Your task to perform on an android device: allow cookies in the chrome app Image 0: 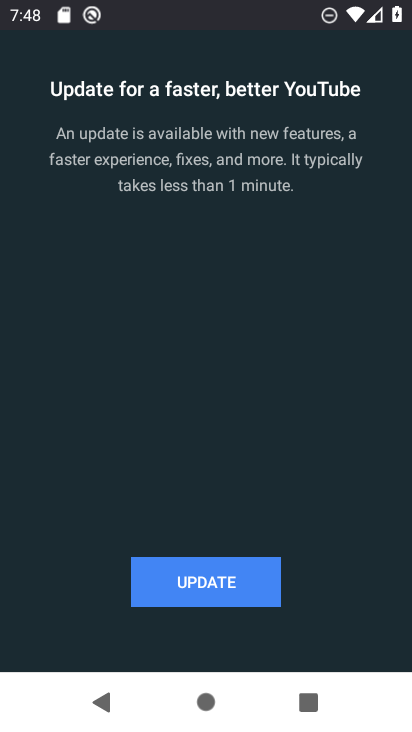
Step 0: press home button
Your task to perform on an android device: allow cookies in the chrome app Image 1: 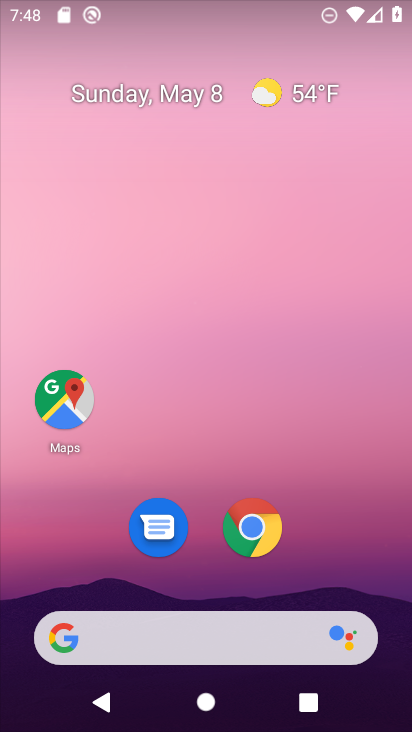
Step 1: click (256, 527)
Your task to perform on an android device: allow cookies in the chrome app Image 2: 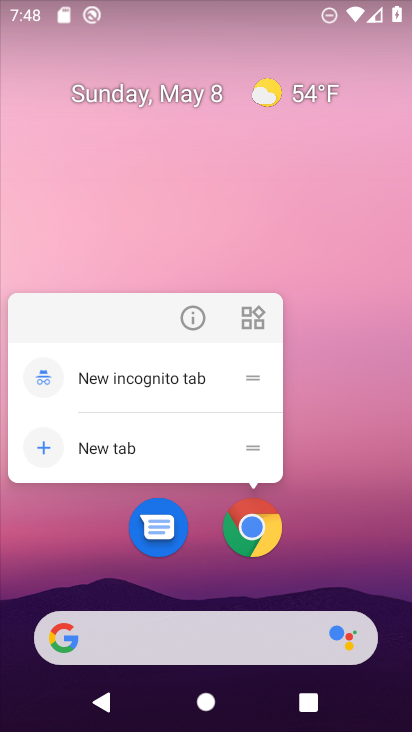
Step 2: click (256, 527)
Your task to perform on an android device: allow cookies in the chrome app Image 3: 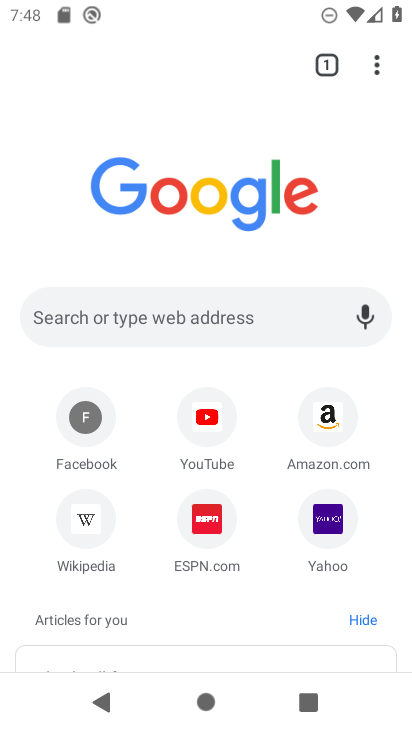
Step 3: drag from (377, 62) to (165, 545)
Your task to perform on an android device: allow cookies in the chrome app Image 4: 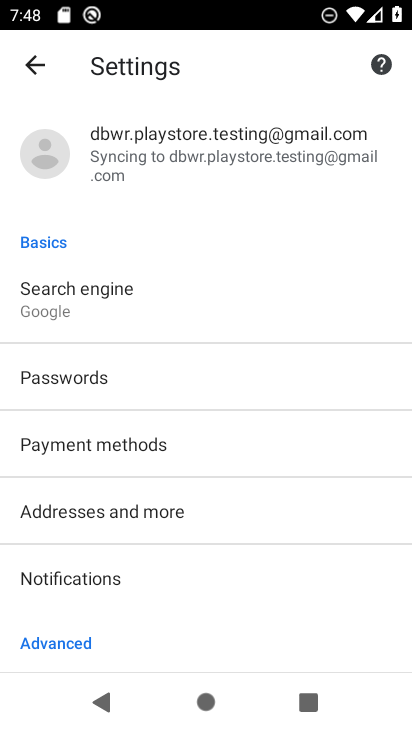
Step 4: drag from (148, 622) to (335, 141)
Your task to perform on an android device: allow cookies in the chrome app Image 5: 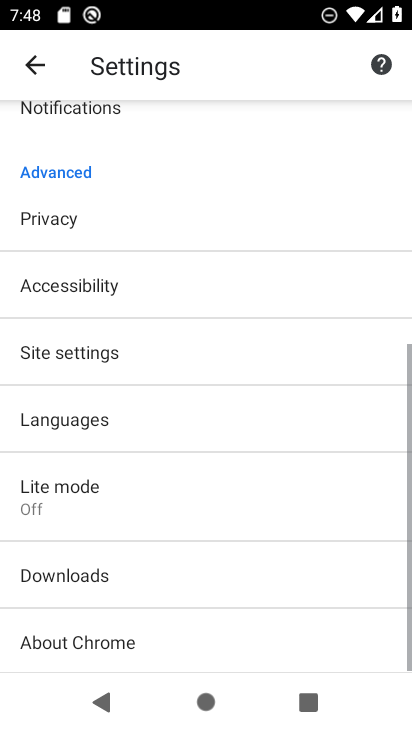
Step 5: click (335, 141)
Your task to perform on an android device: allow cookies in the chrome app Image 6: 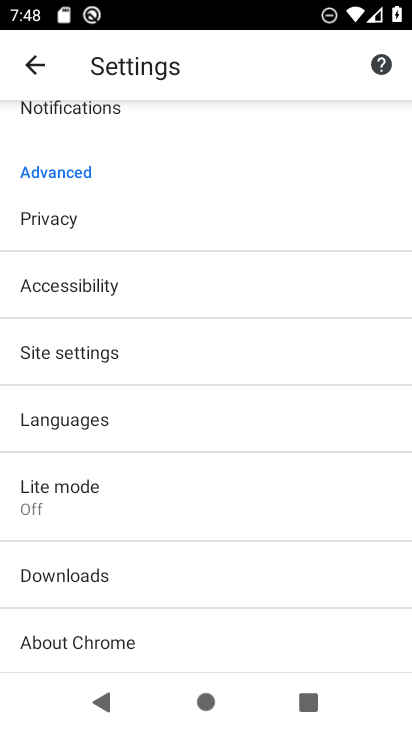
Step 6: click (79, 357)
Your task to perform on an android device: allow cookies in the chrome app Image 7: 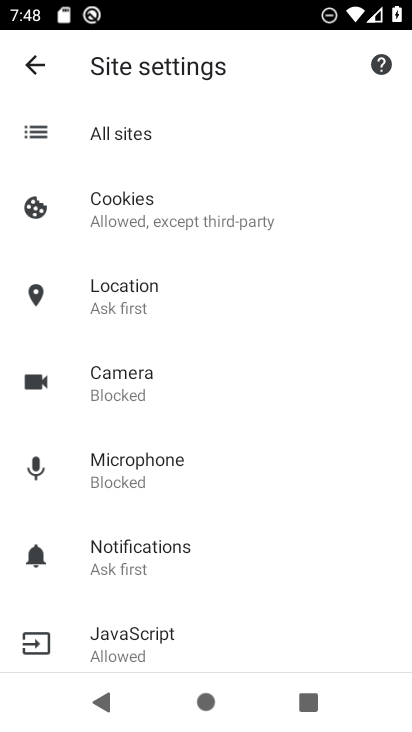
Step 7: click (207, 212)
Your task to perform on an android device: allow cookies in the chrome app Image 8: 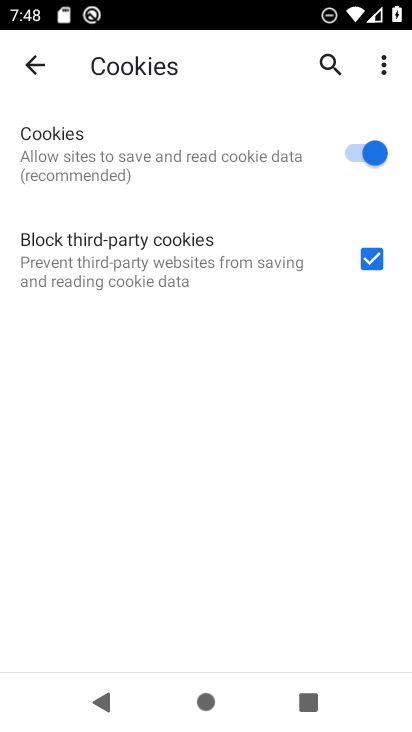
Step 8: task complete